Your task to perform on an android device: empty trash in the gmail app Image 0: 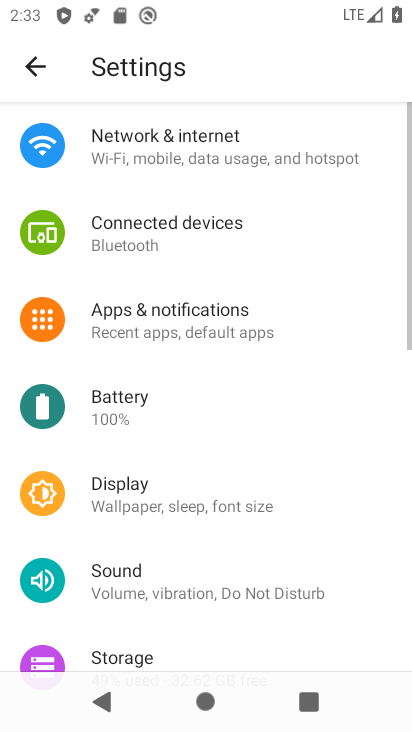
Step 0: press home button
Your task to perform on an android device: empty trash in the gmail app Image 1: 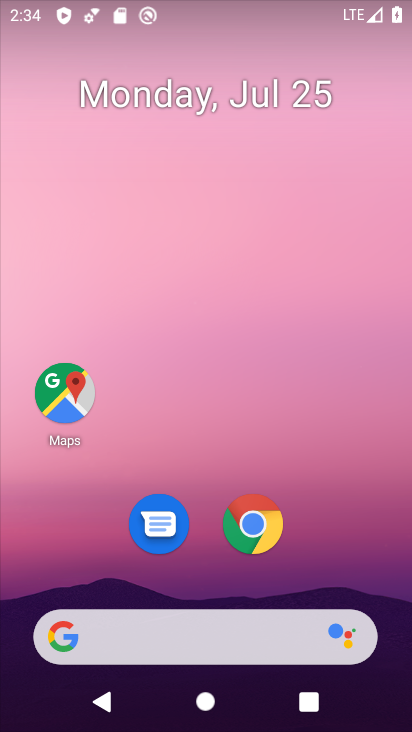
Step 1: drag from (323, 432) to (345, 23)
Your task to perform on an android device: empty trash in the gmail app Image 2: 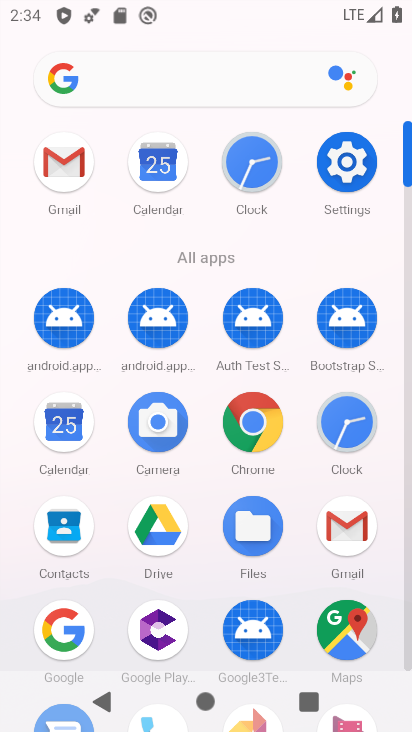
Step 2: click (71, 172)
Your task to perform on an android device: empty trash in the gmail app Image 3: 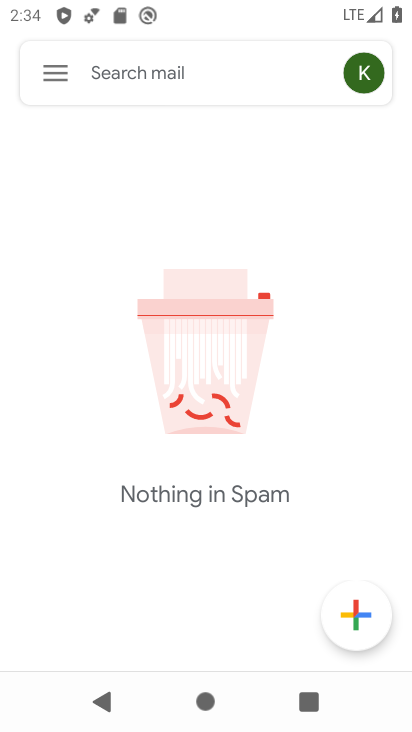
Step 3: click (57, 72)
Your task to perform on an android device: empty trash in the gmail app Image 4: 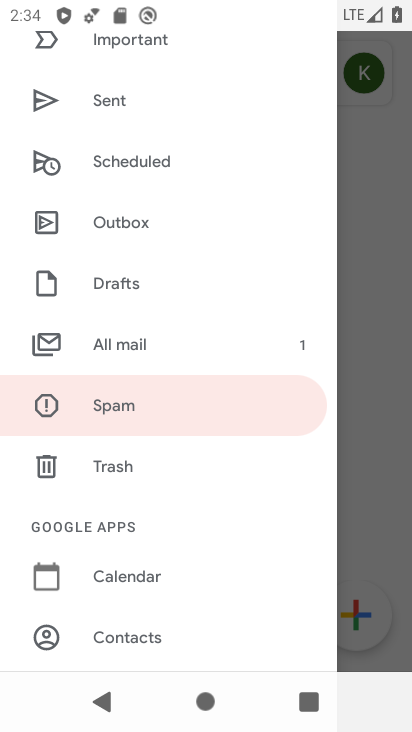
Step 4: click (118, 464)
Your task to perform on an android device: empty trash in the gmail app Image 5: 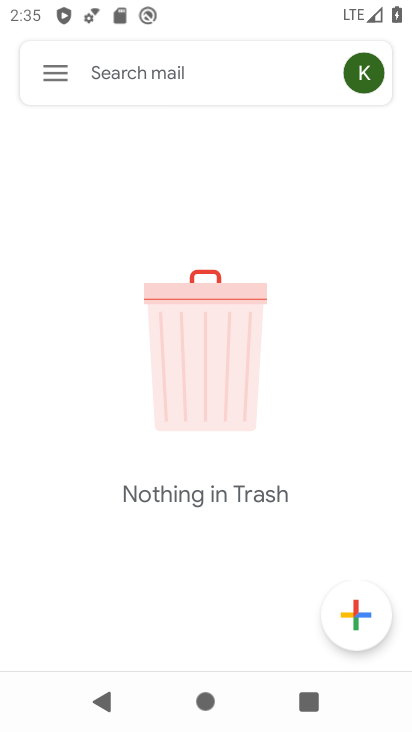
Step 5: task complete